Your task to perform on an android device: add a contact Image 0: 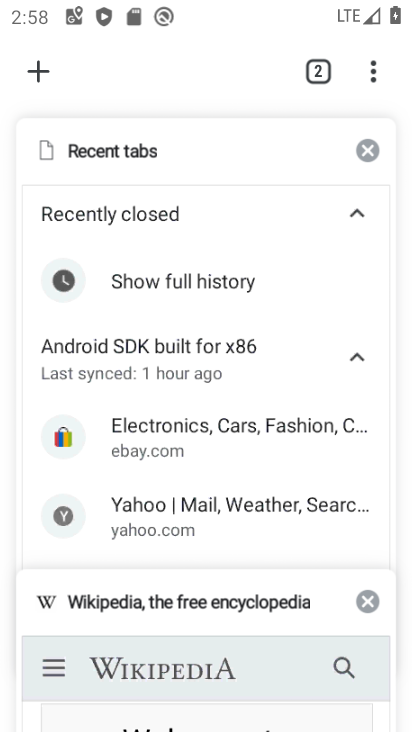
Step 0: press home button
Your task to perform on an android device: add a contact Image 1: 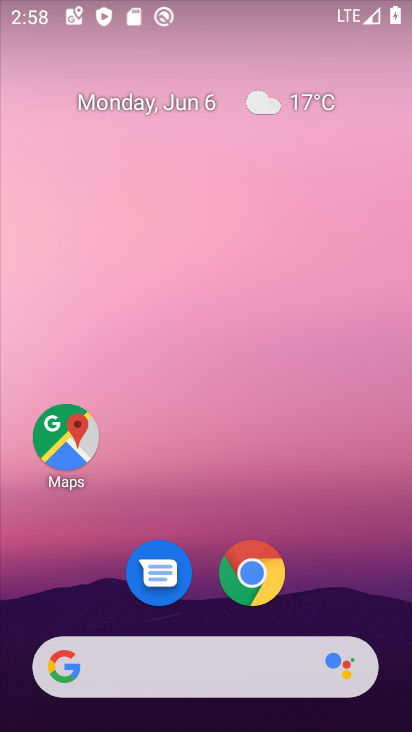
Step 1: drag from (366, 566) to (376, 160)
Your task to perform on an android device: add a contact Image 2: 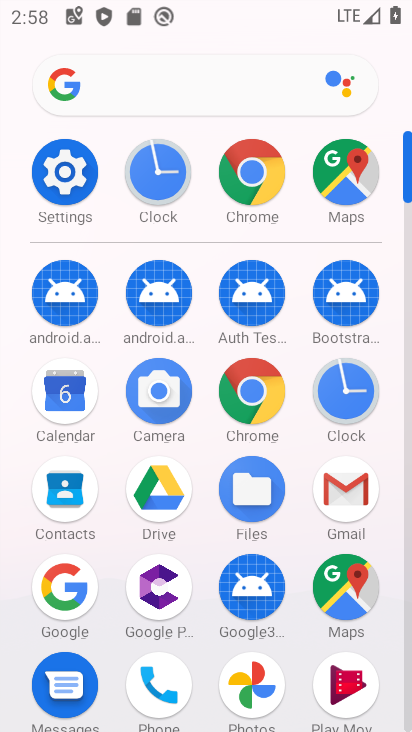
Step 2: click (69, 499)
Your task to perform on an android device: add a contact Image 3: 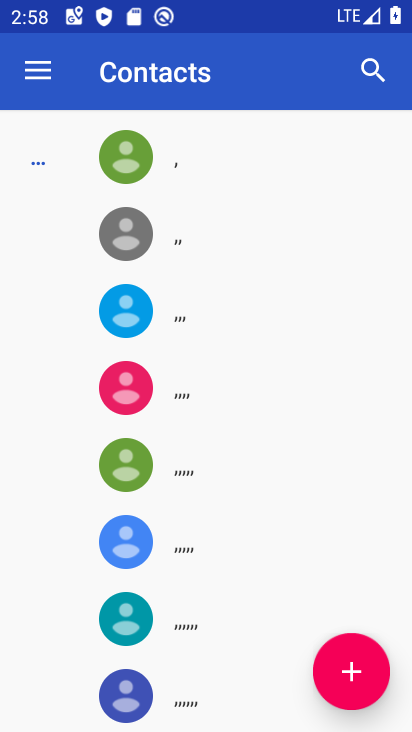
Step 3: click (337, 667)
Your task to perform on an android device: add a contact Image 4: 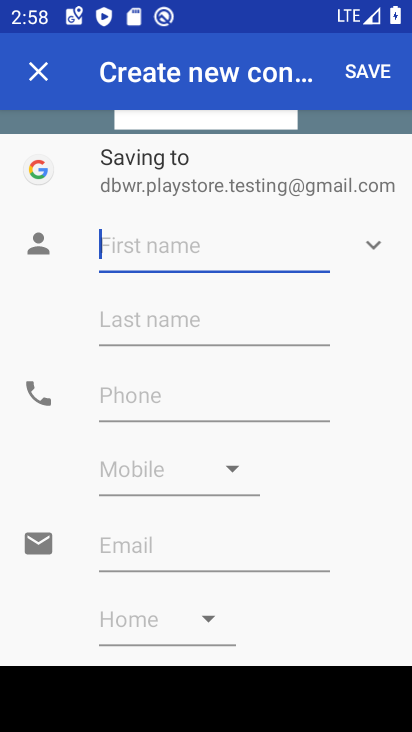
Step 4: type "lolololoollo"
Your task to perform on an android device: add a contact Image 5: 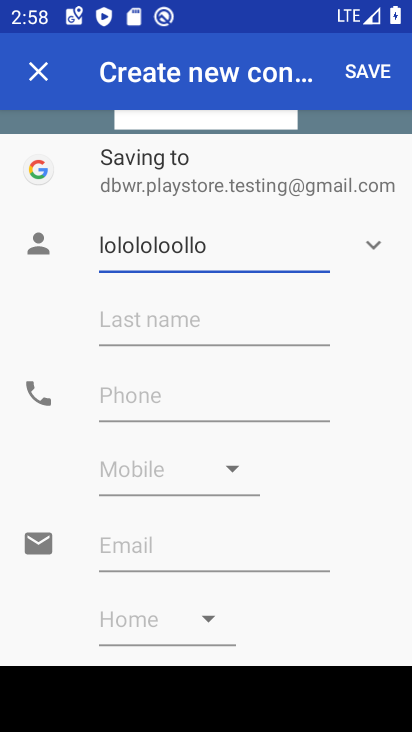
Step 5: click (269, 399)
Your task to perform on an android device: add a contact Image 6: 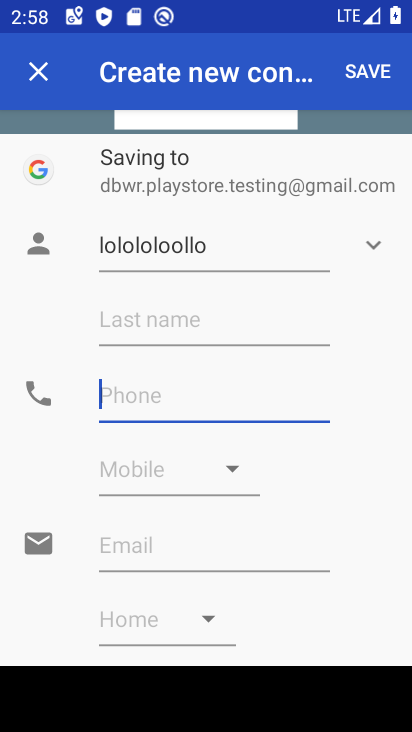
Step 6: type "1234567890"
Your task to perform on an android device: add a contact Image 7: 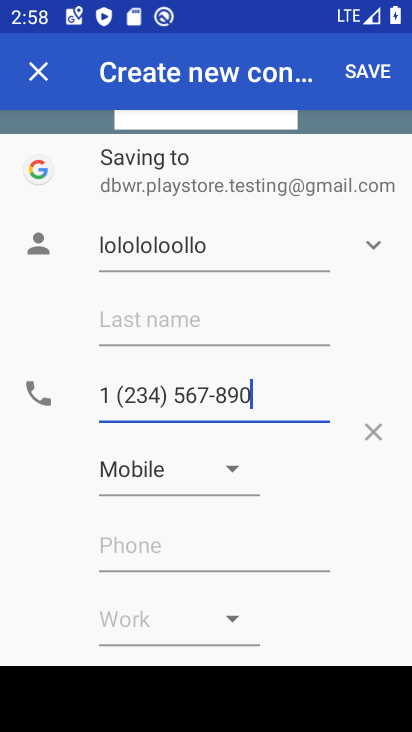
Step 7: click (370, 92)
Your task to perform on an android device: add a contact Image 8: 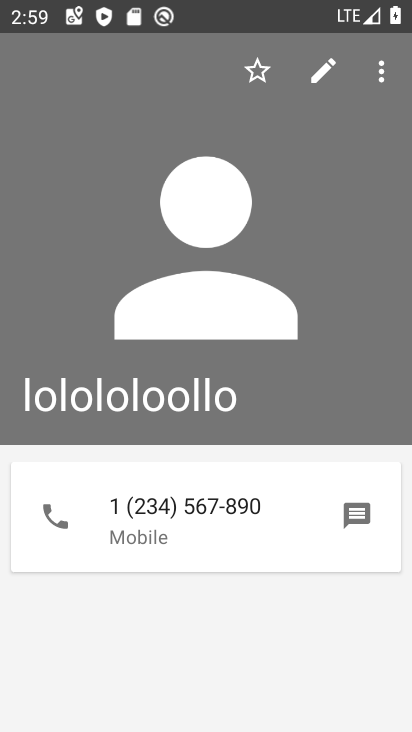
Step 8: task complete